Your task to perform on an android device: What's the weather going to be tomorrow? Image 0: 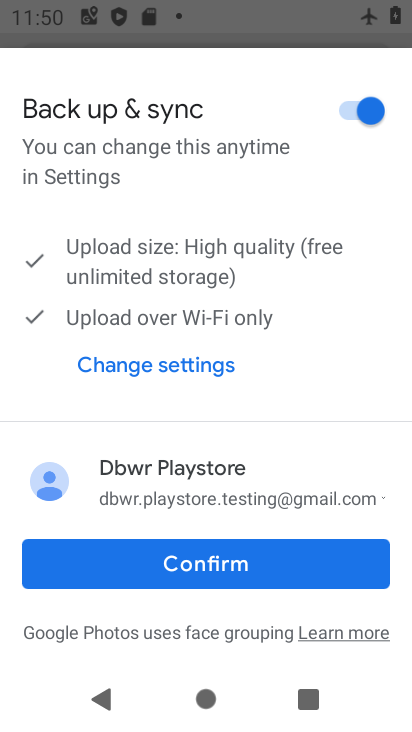
Step 0: press home button
Your task to perform on an android device: What's the weather going to be tomorrow? Image 1: 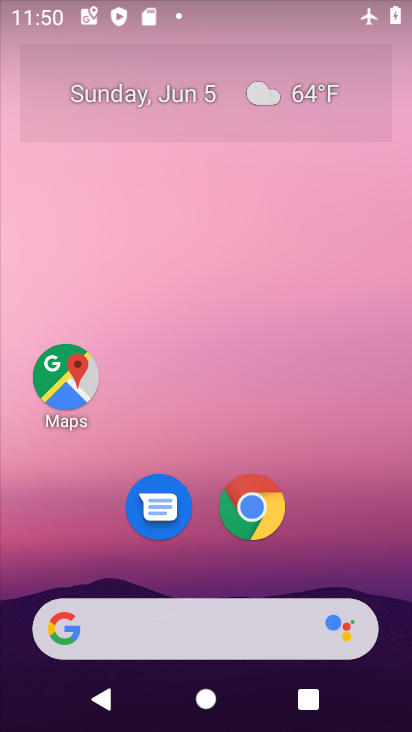
Step 1: click (316, 88)
Your task to perform on an android device: What's the weather going to be tomorrow? Image 2: 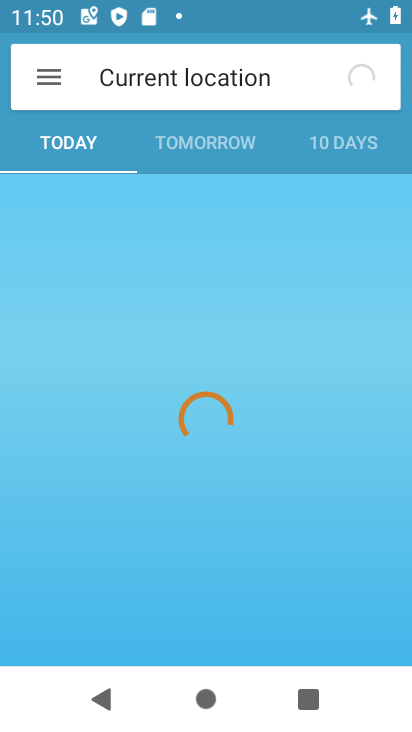
Step 2: click (310, 97)
Your task to perform on an android device: What's the weather going to be tomorrow? Image 3: 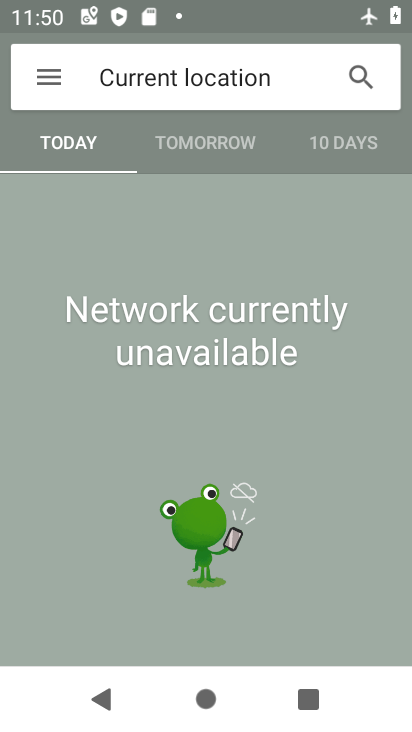
Step 3: click (234, 146)
Your task to perform on an android device: What's the weather going to be tomorrow? Image 4: 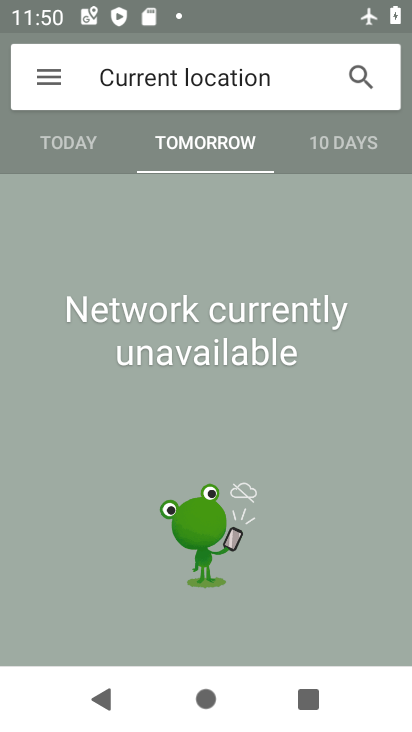
Step 4: task complete